Your task to perform on an android device: Go to privacy settings Image 0: 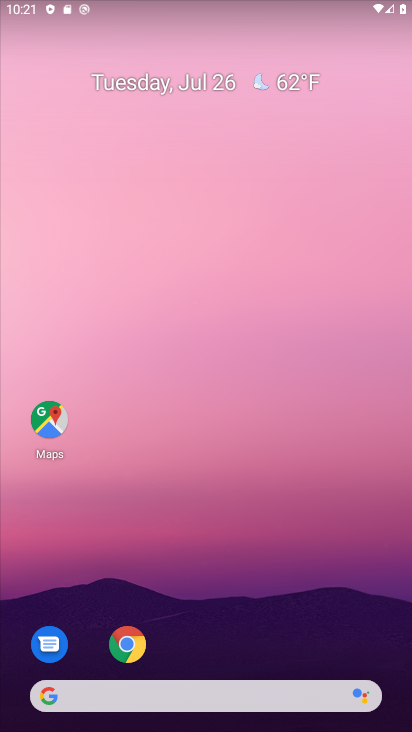
Step 0: drag from (318, 633) to (287, 298)
Your task to perform on an android device: Go to privacy settings Image 1: 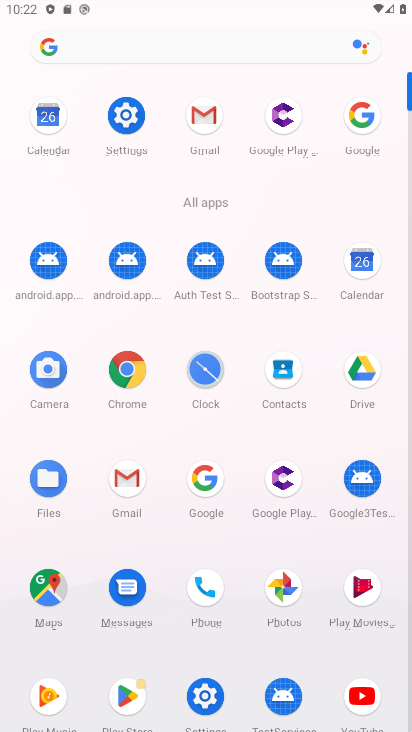
Step 1: click (202, 693)
Your task to perform on an android device: Go to privacy settings Image 2: 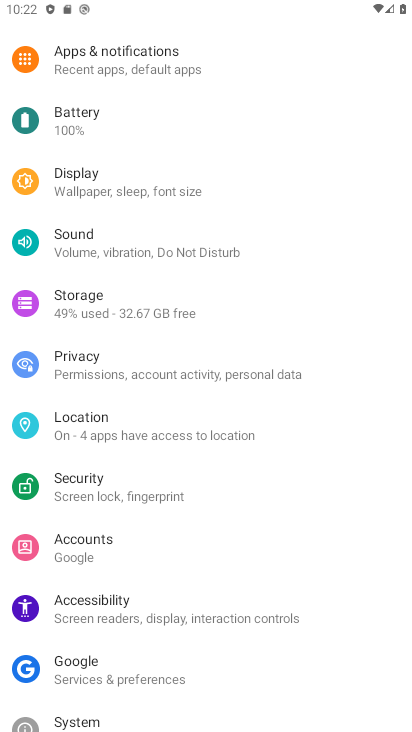
Step 2: click (59, 359)
Your task to perform on an android device: Go to privacy settings Image 3: 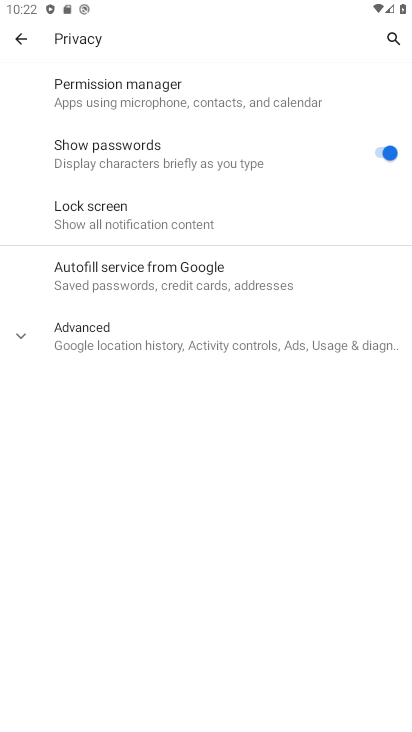
Step 3: task complete